Your task to perform on an android device: Open battery settings Image 0: 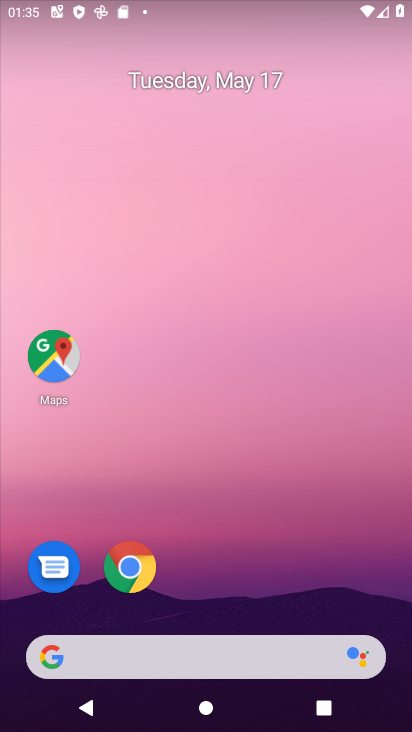
Step 0: drag from (391, 625) to (340, 220)
Your task to perform on an android device: Open battery settings Image 1: 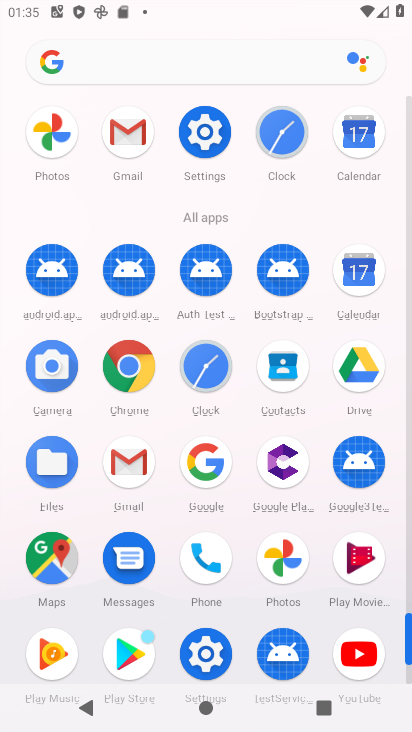
Step 1: click (209, 653)
Your task to perform on an android device: Open battery settings Image 2: 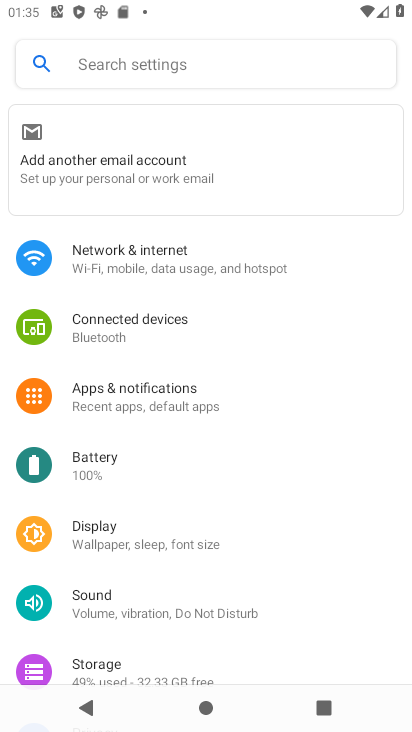
Step 2: click (81, 451)
Your task to perform on an android device: Open battery settings Image 3: 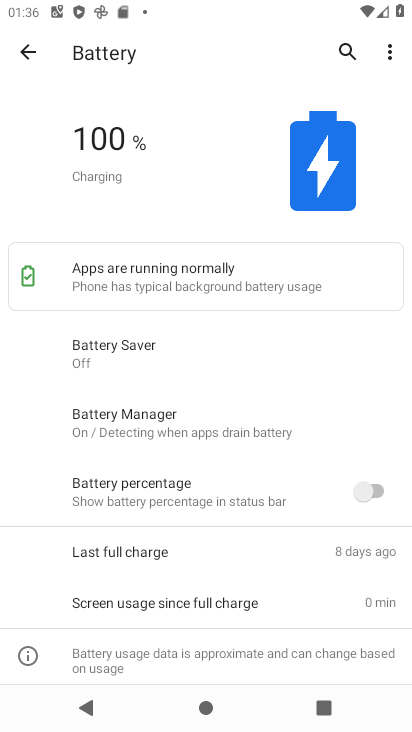
Step 3: task complete